Your task to perform on an android device: make emails show in primary in the gmail app Image 0: 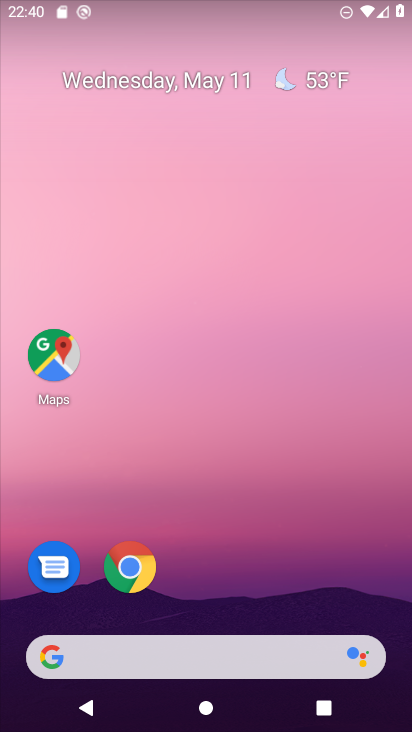
Step 0: drag from (256, 599) to (262, 125)
Your task to perform on an android device: make emails show in primary in the gmail app Image 1: 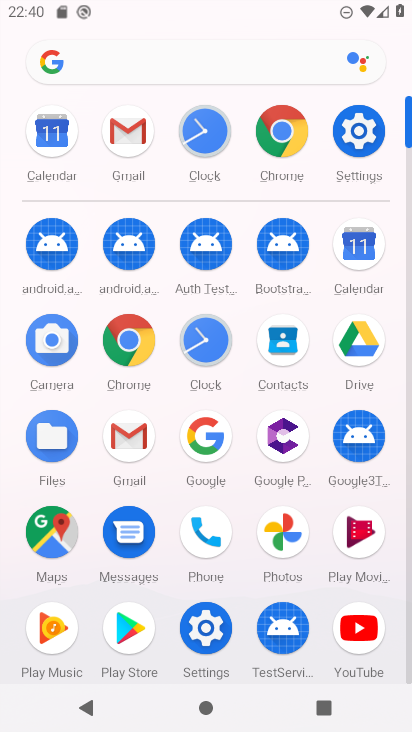
Step 1: click (133, 141)
Your task to perform on an android device: make emails show in primary in the gmail app Image 2: 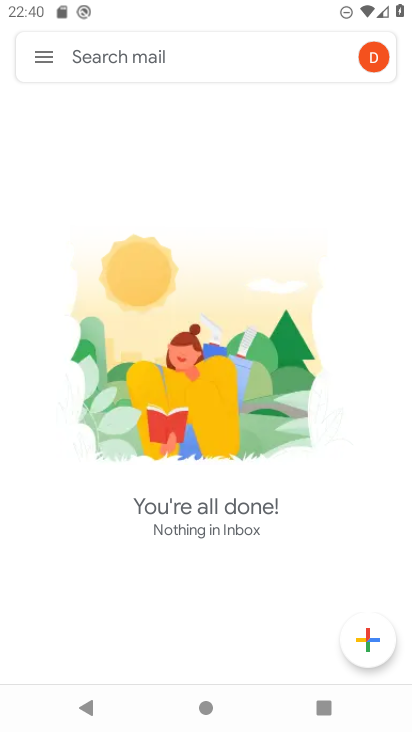
Step 2: click (37, 58)
Your task to perform on an android device: make emails show in primary in the gmail app Image 3: 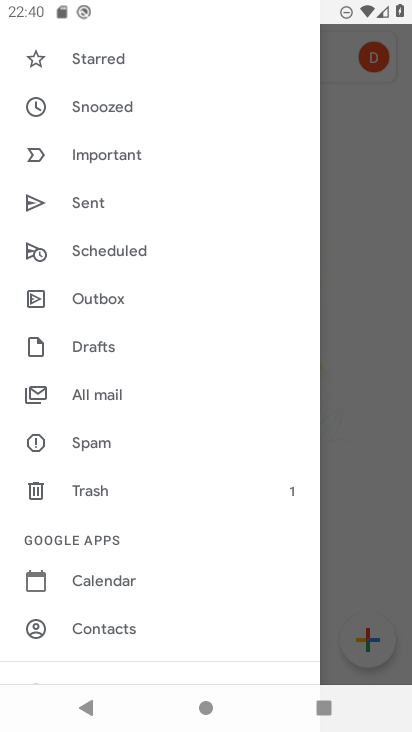
Step 3: drag from (160, 621) to (100, 117)
Your task to perform on an android device: make emails show in primary in the gmail app Image 4: 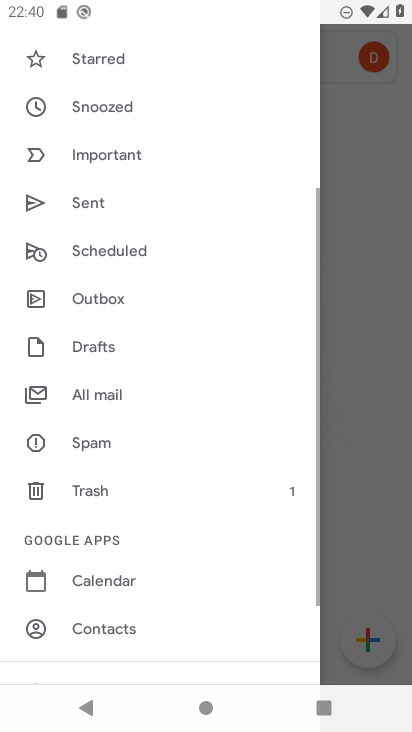
Step 4: drag from (110, 594) to (174, 76)
Your task to perform on an android device: make emails show in primary in the gmail app Image 5: 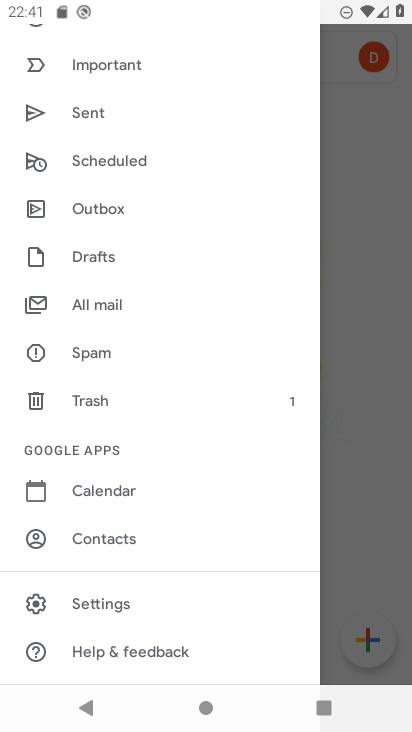
Step 5: click (115, 608)
Your task to perform on an android device: make emails show in primary in the gmail app Image 6: 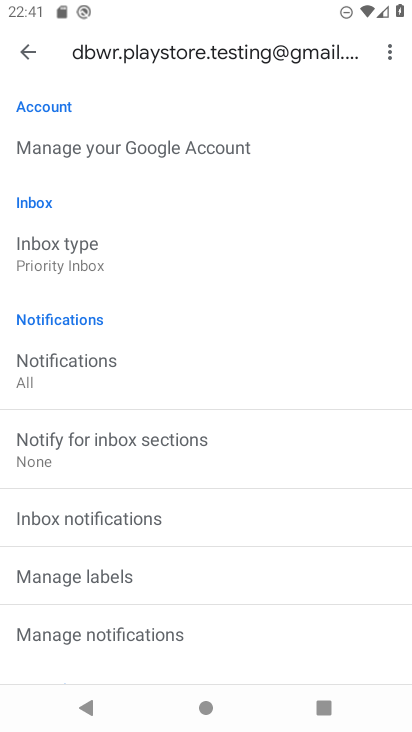
Step 6: click (87, 257)
Your task to perform on an android device: make emails show in primary in the gmail app Image 7: 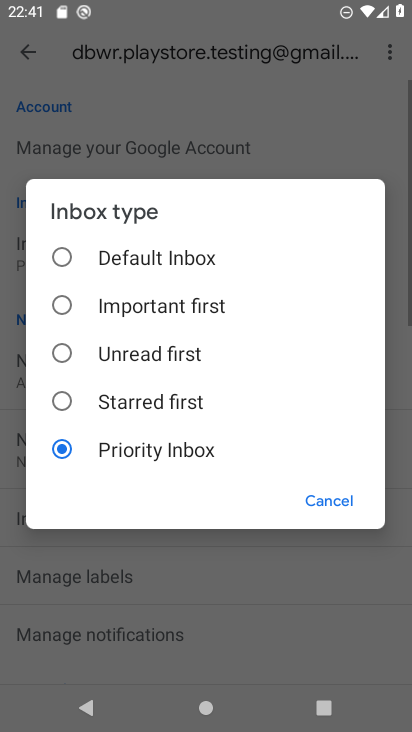
Step 7: click (202, 256)
Your task to perform on an android device: make emails show in primary in the gmail app Image 8: 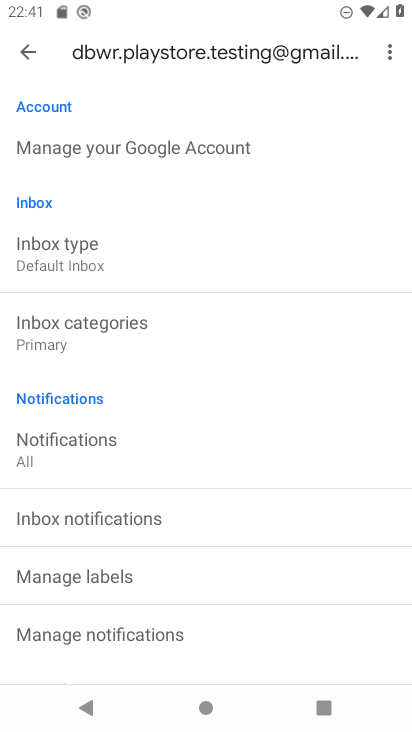
Step 8: task complete